Your task to perform on an android device: Check the news Image 0: 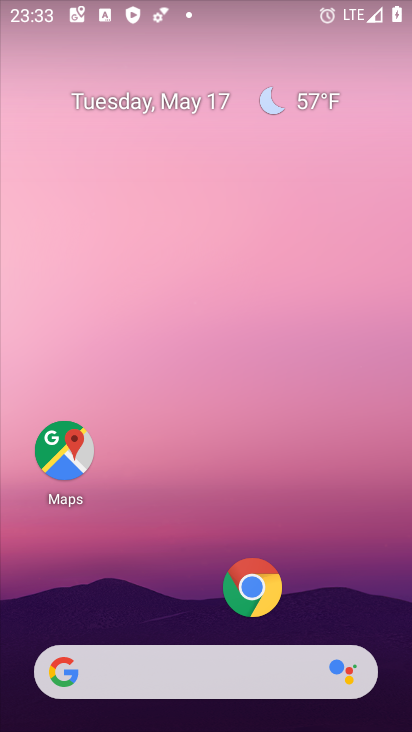
Step 0: click (171, 669)
Your task to perform on an android device: Check the news Image 1: 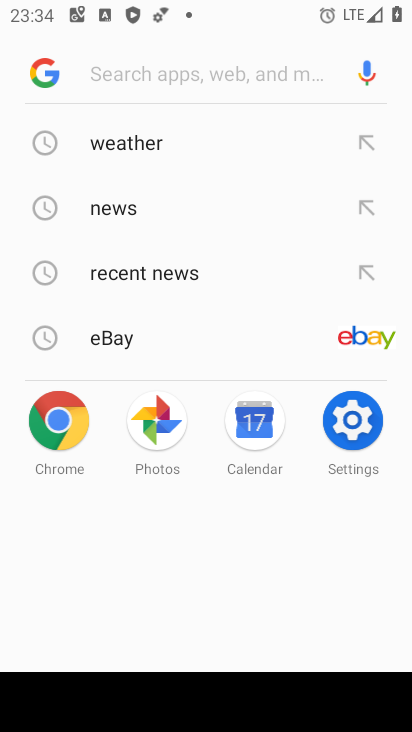
Step 1: click (100, 210)
Your task to perform on an android device: Check the news Image 2: 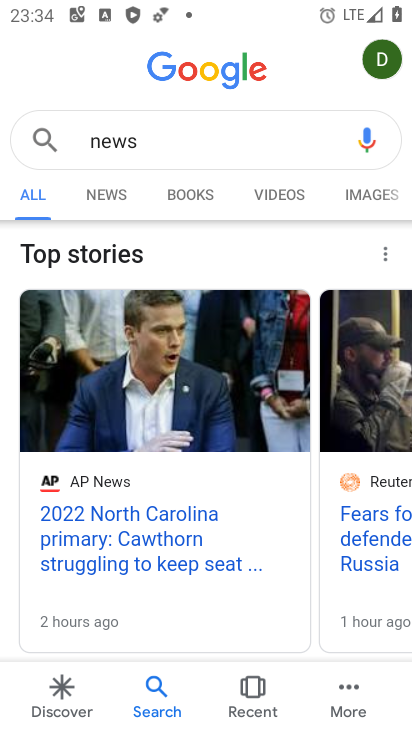
Step 2: task complete